Your task to perform on an android device: Open a new Chrome incognito window Image 0: 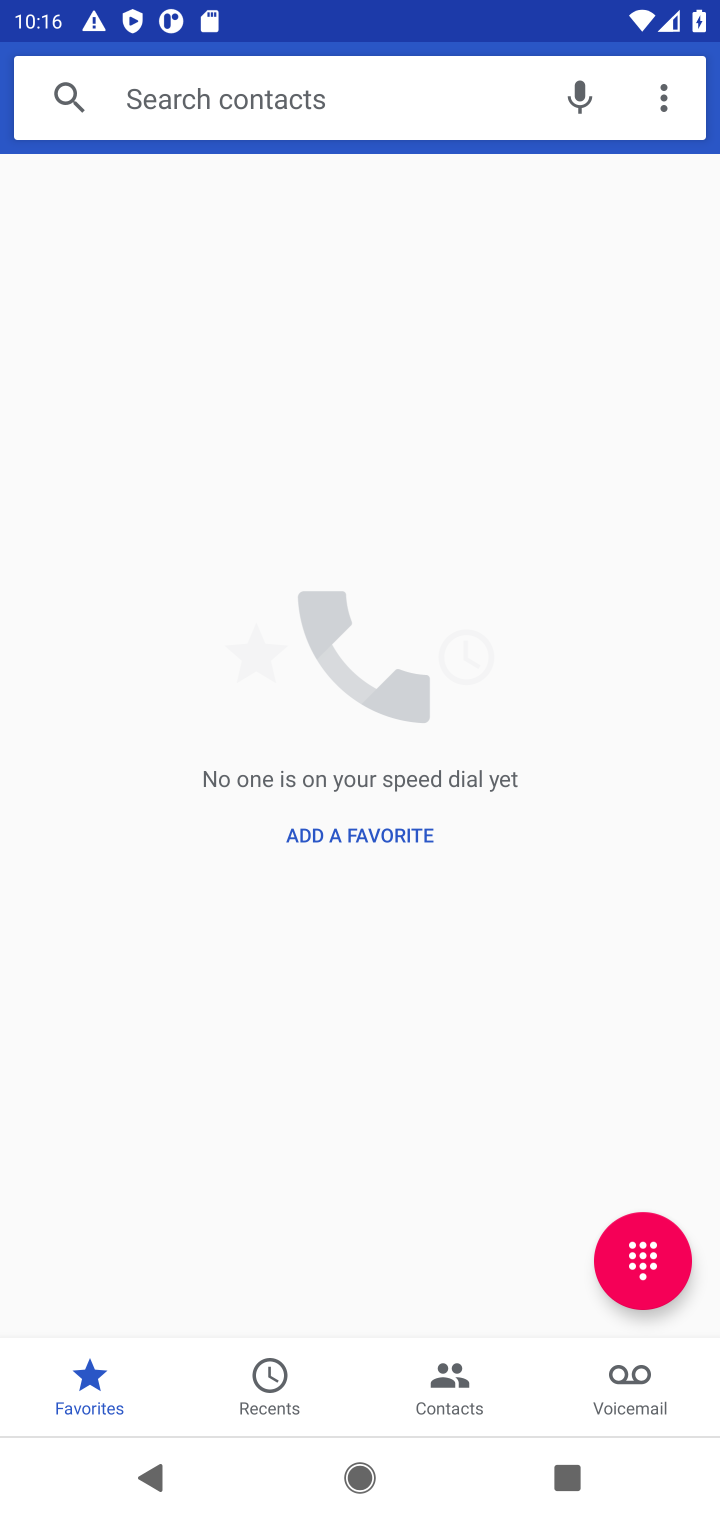
Step 0: press home button
Your task to perform on an android device: Open a new Chrome incognito window Image 1: 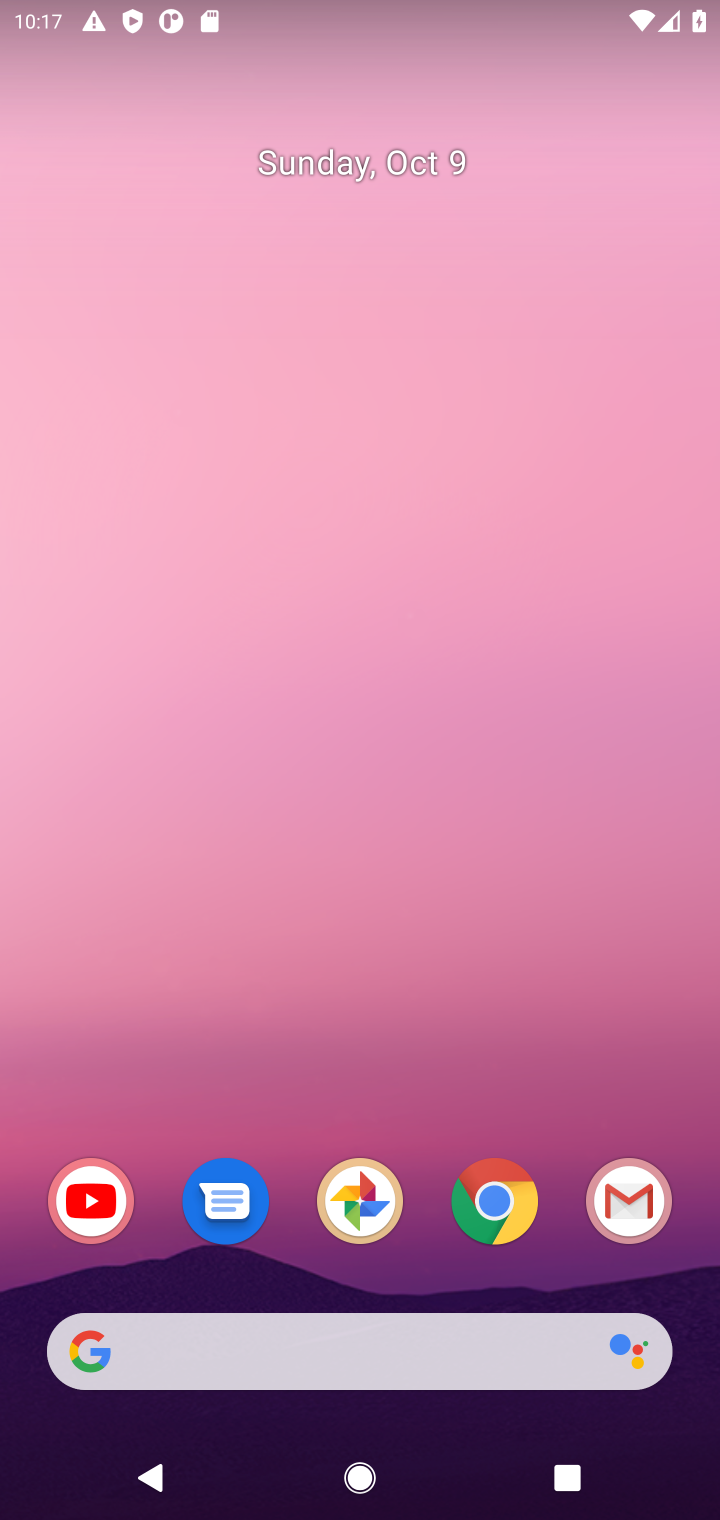
Step 1: click (493, 1198)
Your task to perform on an android device: Open a new Chrome incognito window Image 2: 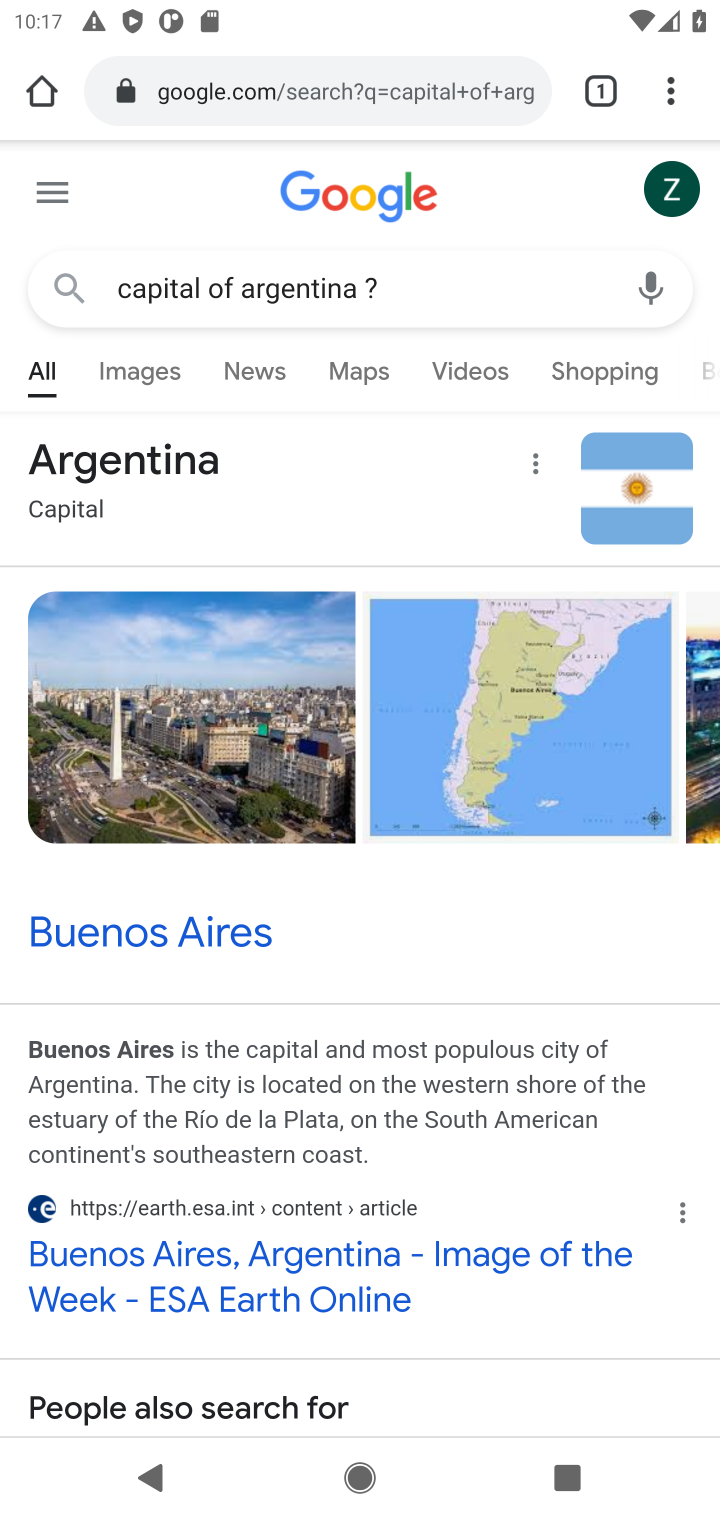
Step 2: click (669, 97)
Your task to perform on an android device: Open a new Chrome incognito window Image 3: 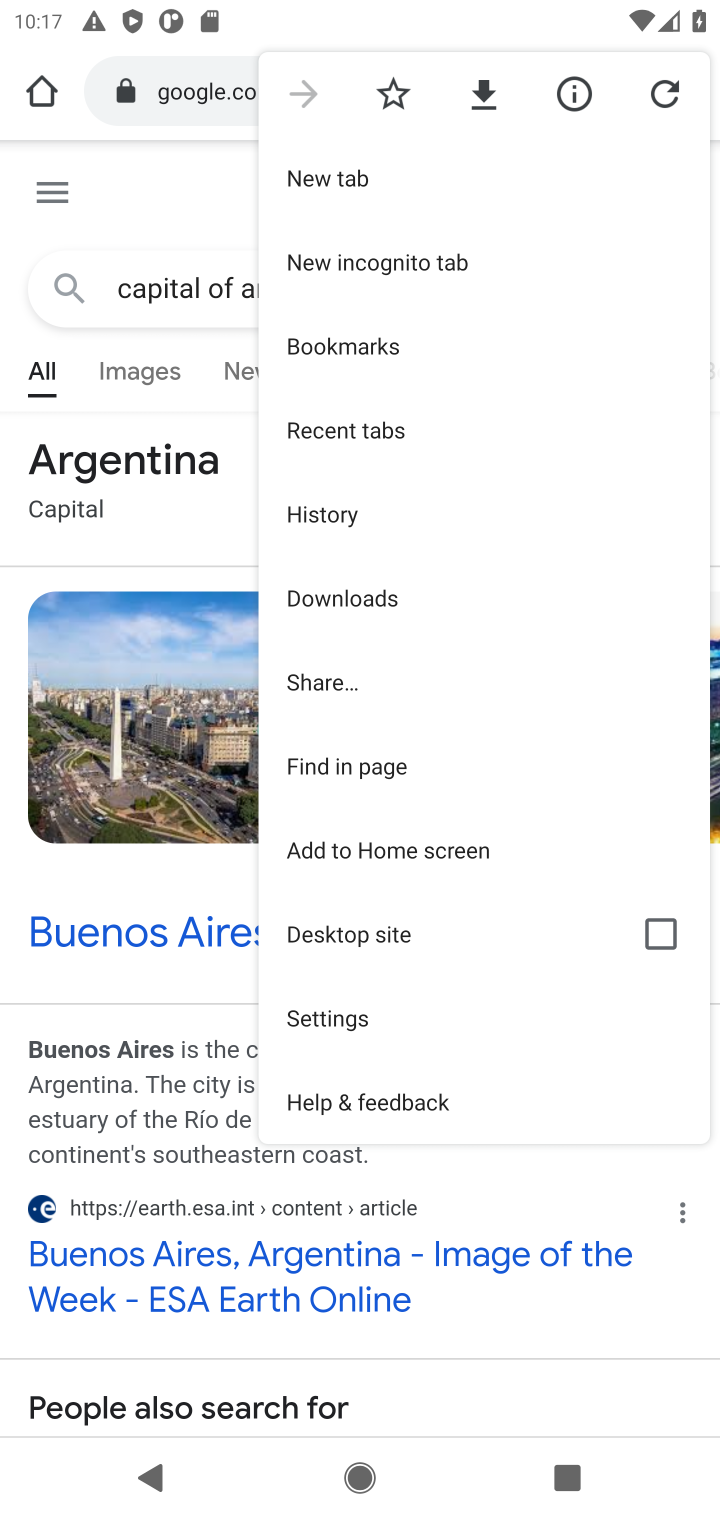
Step 3: click (443, 264)
Your task to perform on an android device: Open a new Chrome incognito window Image 4: 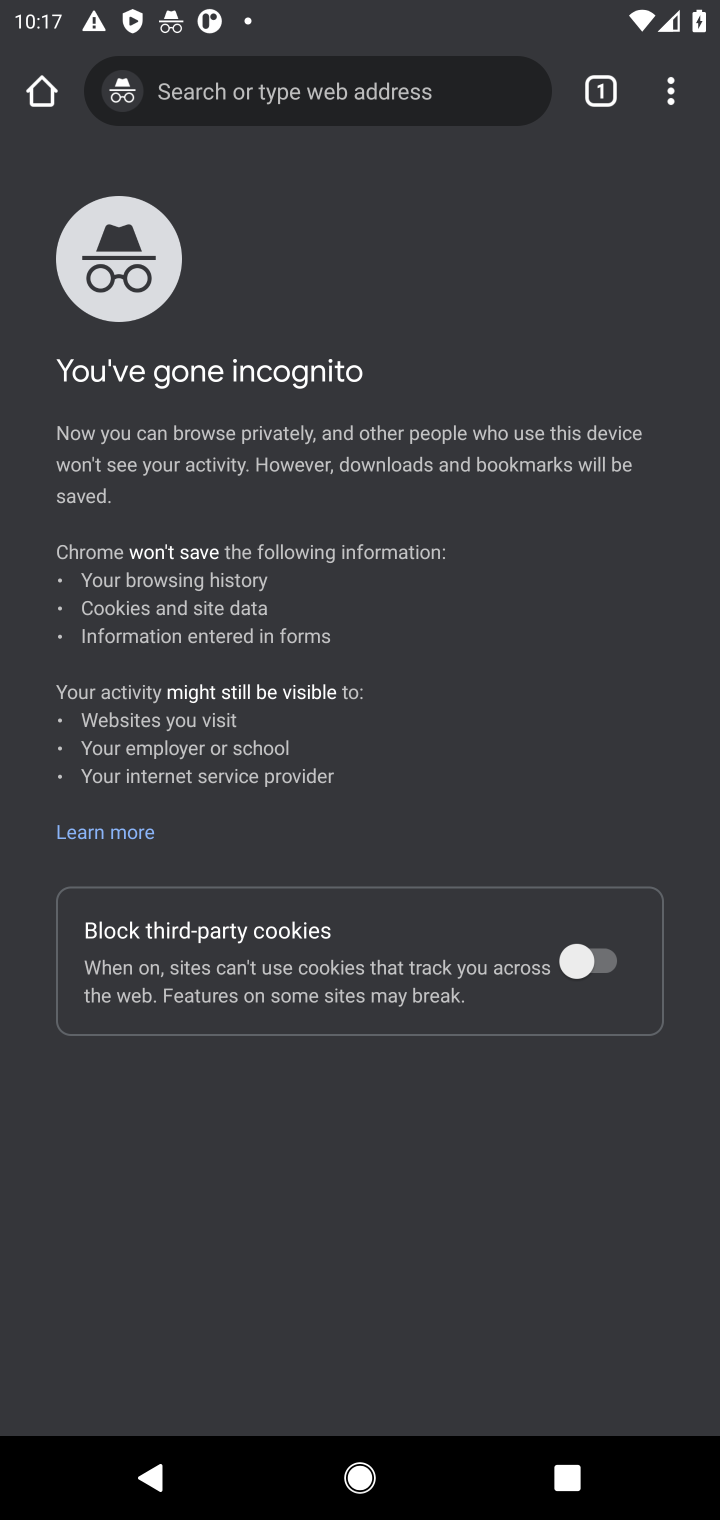
Step 4: task complete